Your task to perform on an android device: open a bookmark in the chrome app Image 0: 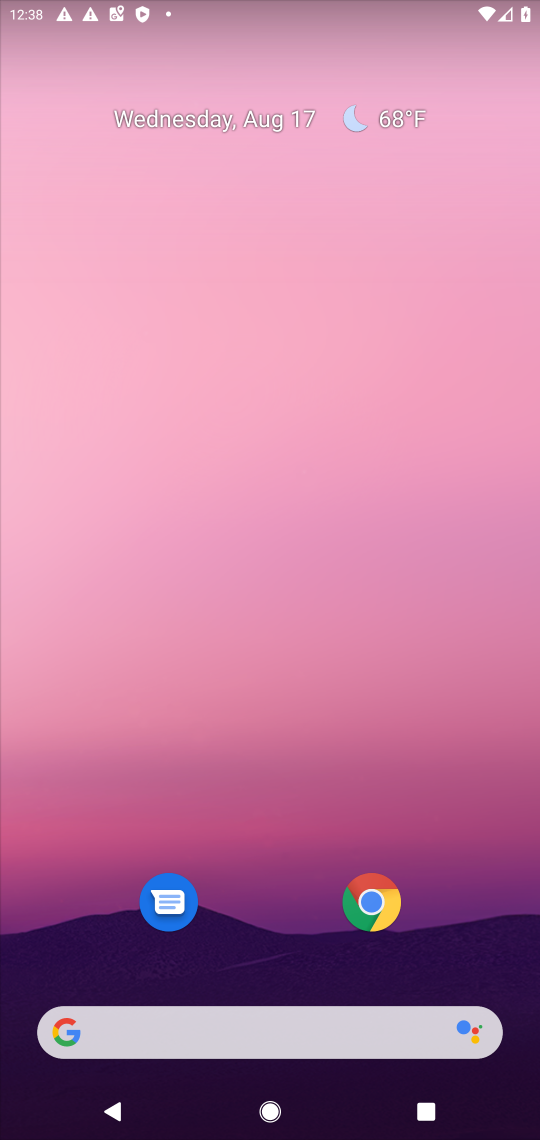
Step 0: click (377, 911)
Your task to perform on an android device: open a bookmark in the chrome app Image 1: 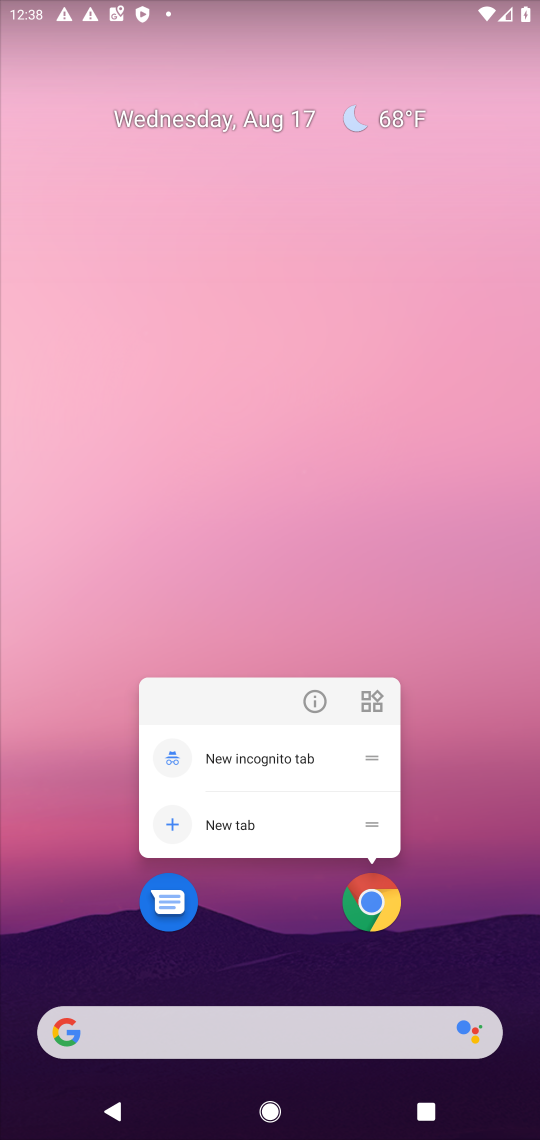
Step 1: click (377, 913)
Your task to perform on an android device: open a bookmark in the chrome app Image 2: 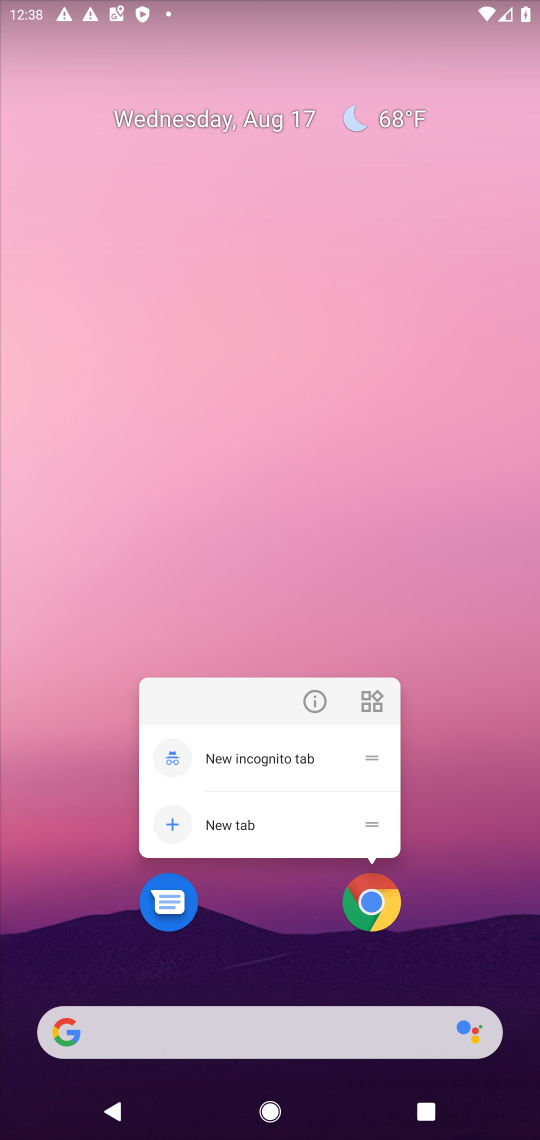
Step 2: click (369, 888)
Your task to perform on an android device: open a bookmark in the chrome app Image 3: 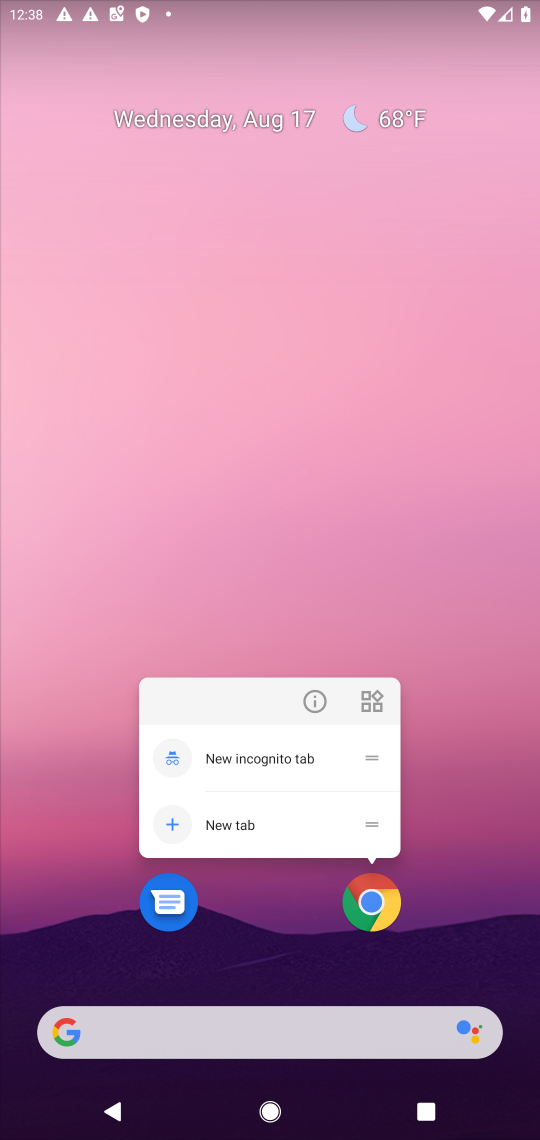
Step 3: click (378, 912)
Your task to perform on an android device: open a bookmark in the chrome app Image 4: 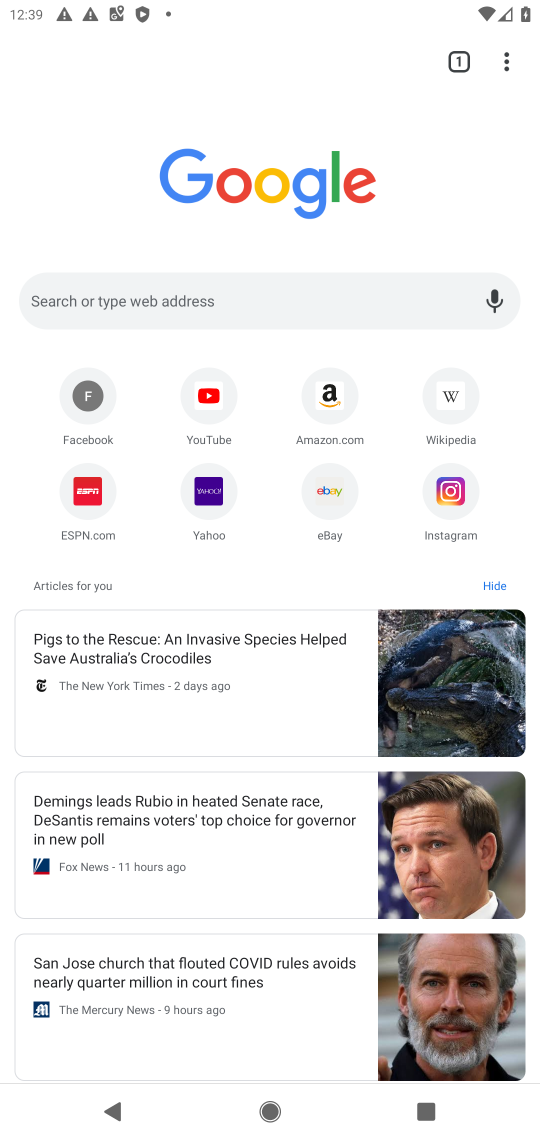
Step 4: click (502, 63)
Your task to perform on an android device: open a bookmark in the chrome app Image 5: 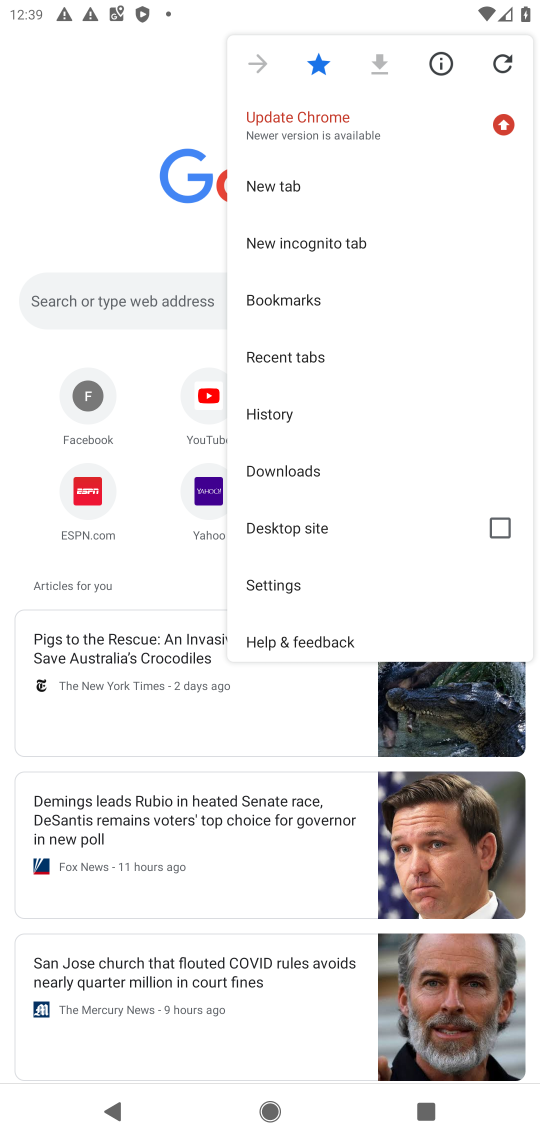
Step 5: click (298, 302)
Your task to perform on an android device: open a bookmark in the chrome app Image 6: 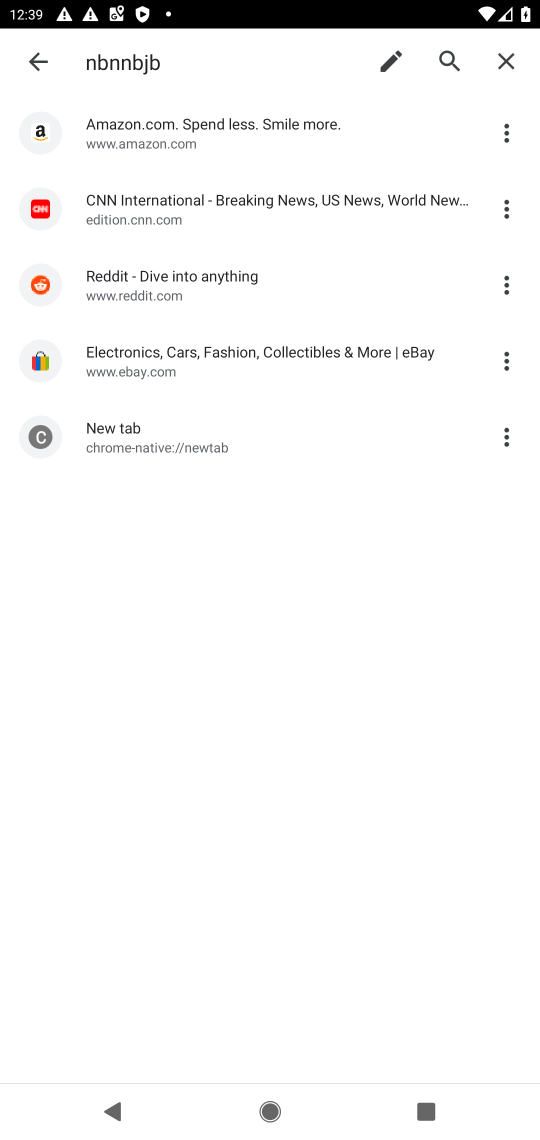
Step 6: click (206, 369)
Your task to perform on an android device: open a bookmark in the chrome app Image 7: 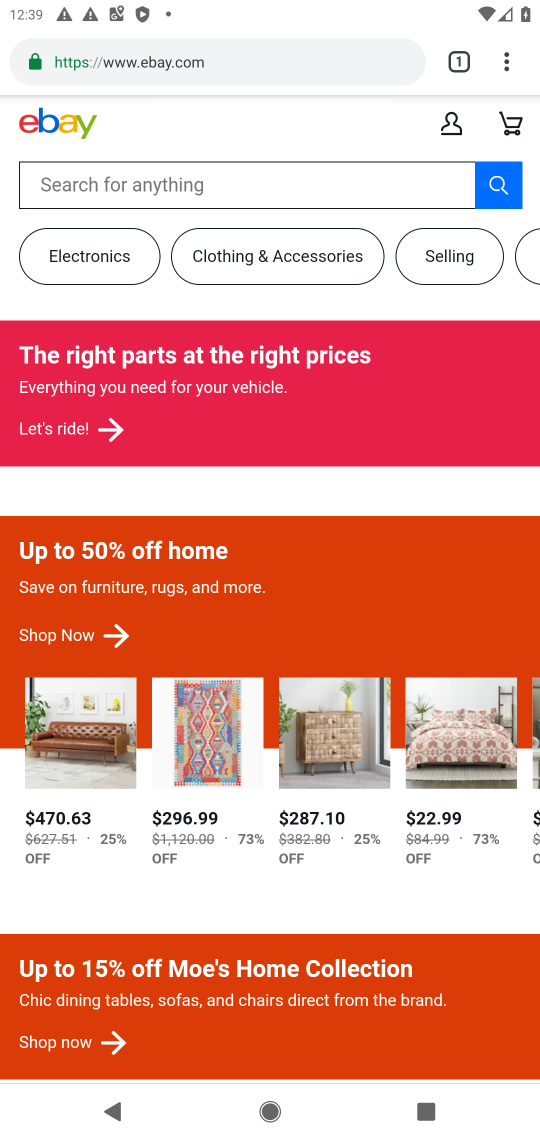
Step 7: task complete